Your task to perform on an android device: Open the stopwatch Image 0: 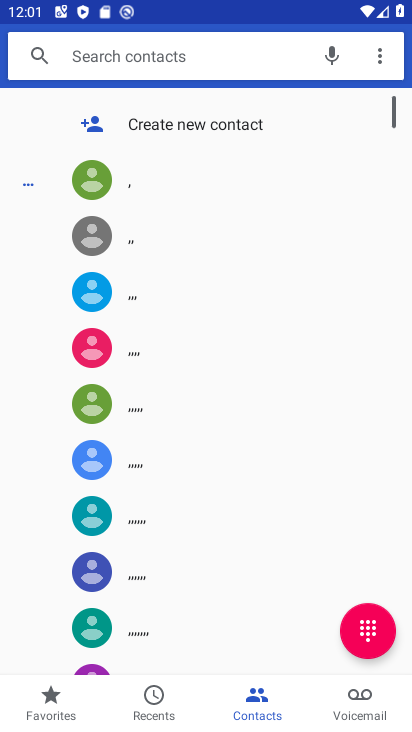
Step 0: press home button
Your task to perform on an android device: Open the stopwatch Image 1: 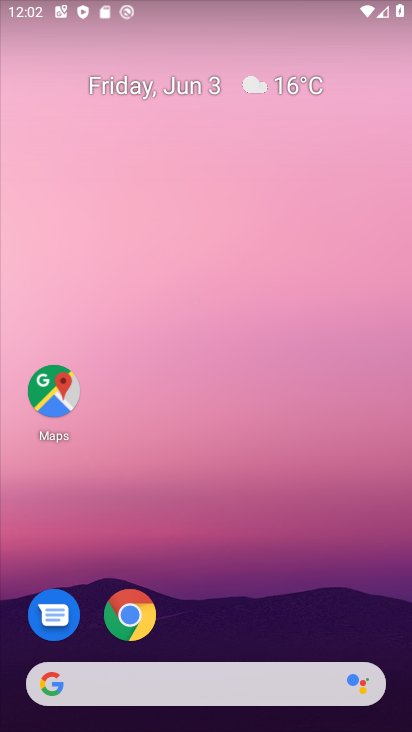
Step 1: drag from (310, 477) to (306, 191)
Your task to perform on an android device: Open the stopwatch Image 2: 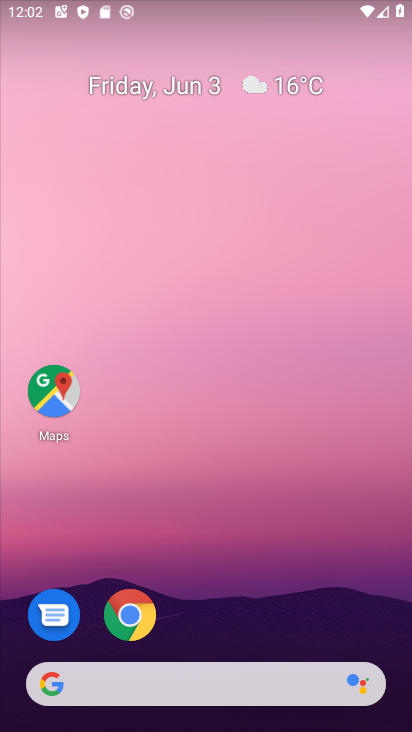
Step 2: drag from (232, 597) to (233, 242)
Your task to perform on an android device: Open the stopwatch Image 3: 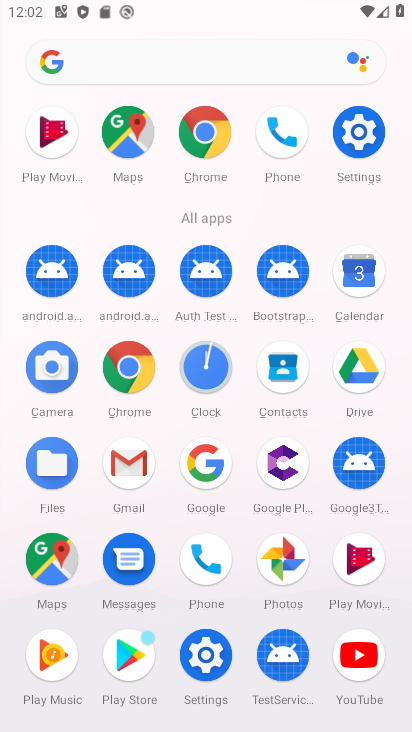
Step 3: click (207, 354)
Your task to perform on an android device: Open the stopwatch Image 4: 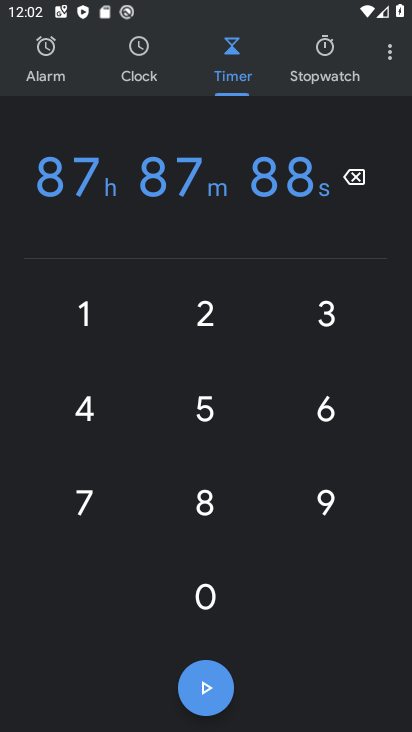
Step 4: click (313, 67)
Your task to perform on an android device: Open the stopwatch Image 5: 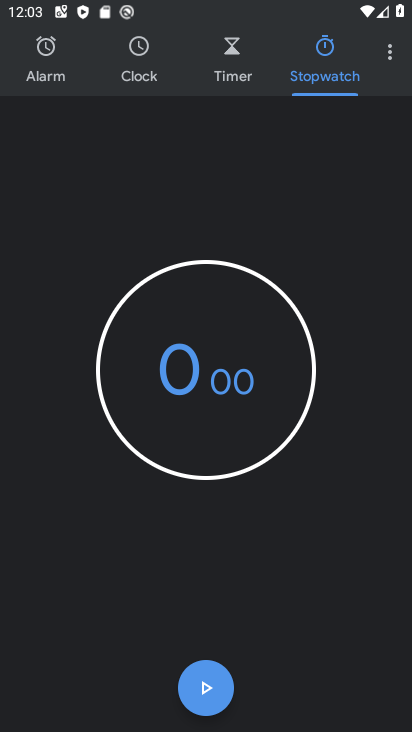
Step 5: task complete